Your task to perform on an android device: toggle airplane mode Image 0: 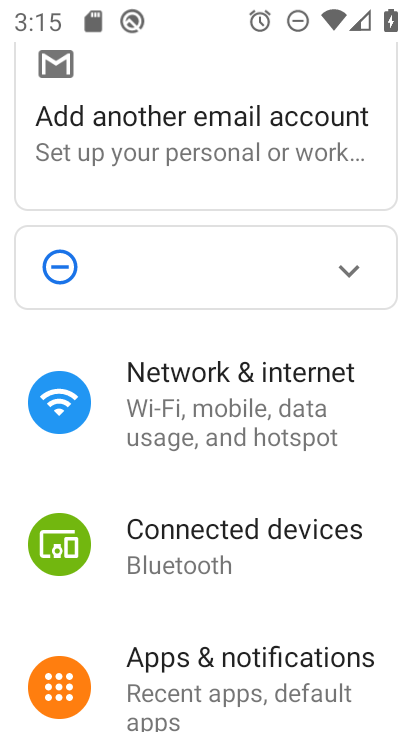
Step 0: drag from (371, 597) to (365, 420)
Your task to perform on an android device: toggle airplane mode Image 1: 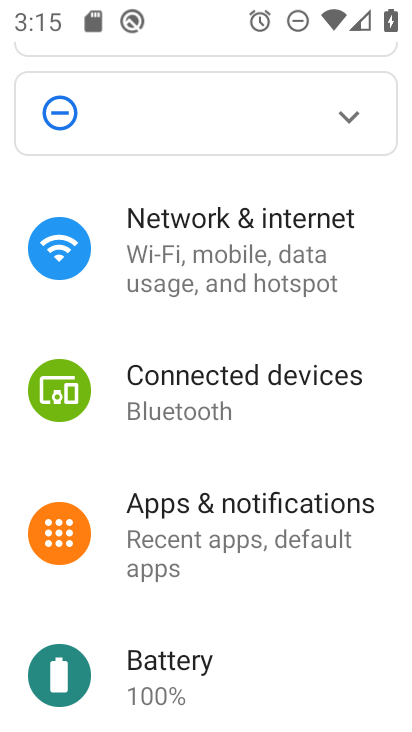
Step 1: drag from (343, 611) to (344, 439)
Your task to perform on an android device: toggle airplane mode Image 2: 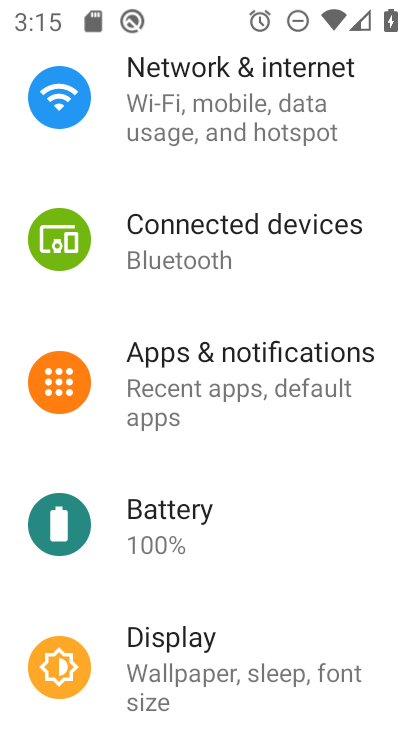
Step 2: drag from (329, 567) to (335, 423)
Your task to perform on an android device: toggle airplane mode Image 3: 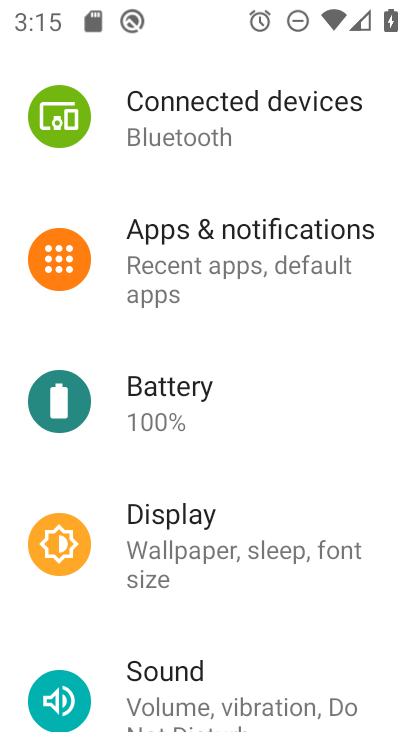
Step 3: drag from (336, 613) to (332, 480)
Your task to perform on an android device: toggle airplane mode Image 4: 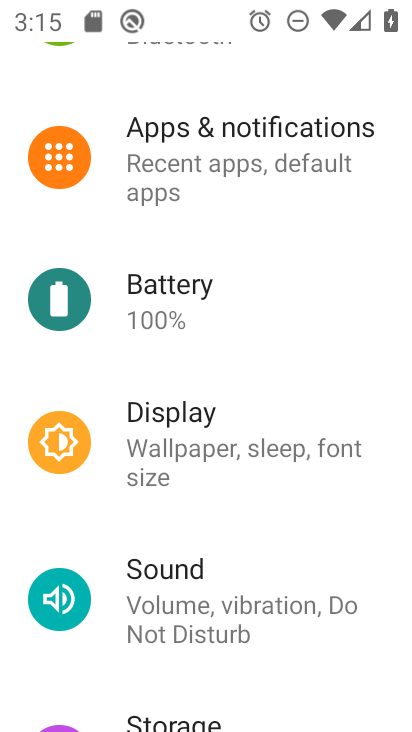
Step 4: drag from (352, 679) to (351, 480)
Your task to perform on an android device: toggle airplane mode Image 5: 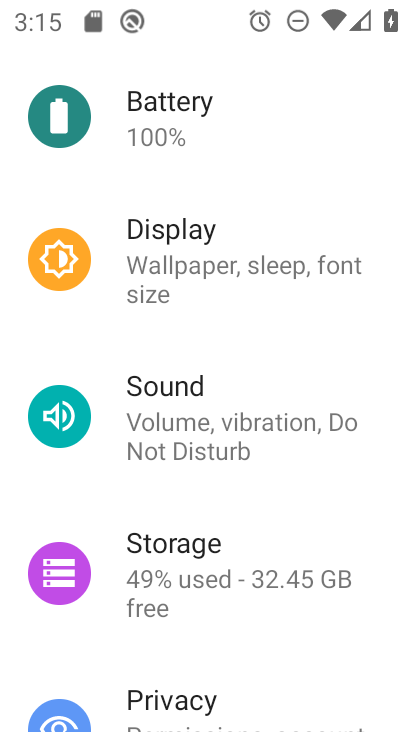
Step 5: drag from (346, 667) to (358, 471)
Your task to perform on an android device: toggle airplane mode Image 6: 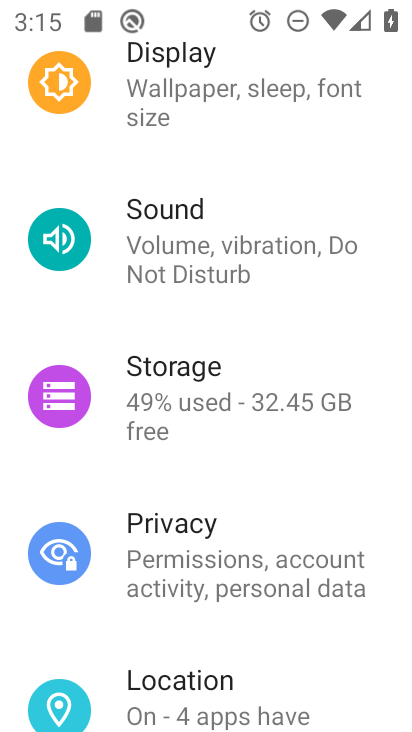
Step 6: drag from (332, 608) to (326, 442)
Your task to perform on an android device: toggle airplane mode Image 7: 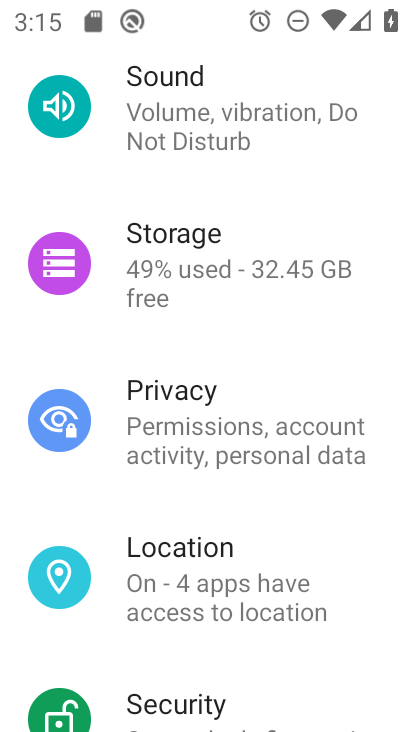
Step 7: drag from (333, 301) to (338, 399)
Your task to perform on an android device: toggle airplane mode Image 8: 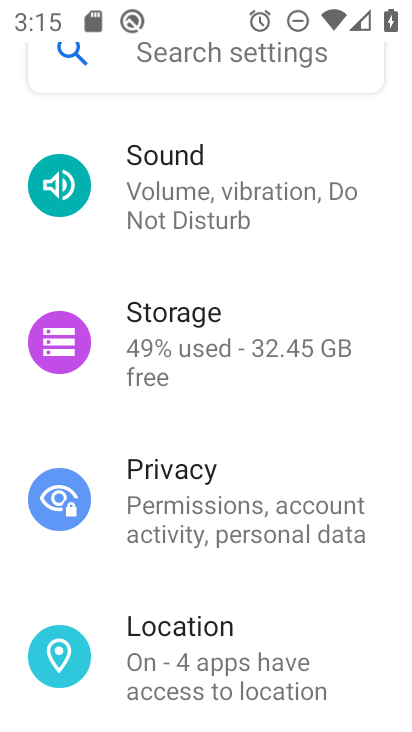
Step 8: drag from (360, 267) to (380, 390)
Your task to perform on an android device: toggle airplane mode Image 9: 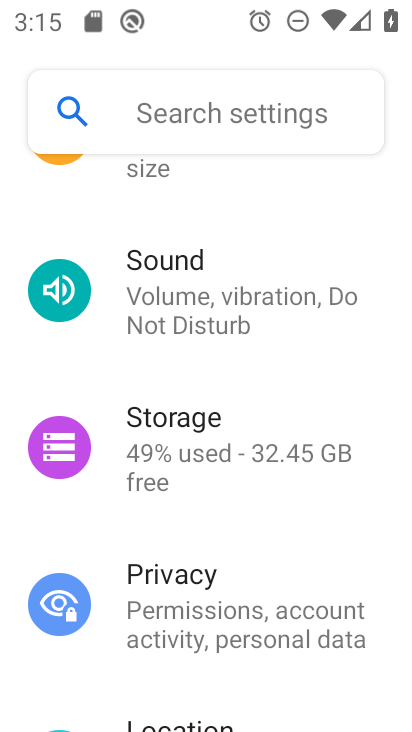
Step 9: drag from (388, 242) to (373, 435)
Your task to perform on an android device: toggle airplane mode Image 10: 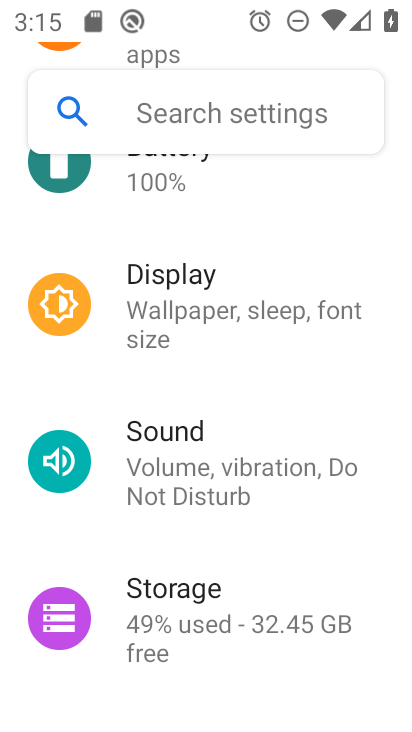
Step 10: drag from (367, 242) to (384, 344)
Your task to perform on an android device: toggle airplane mode Image 11: 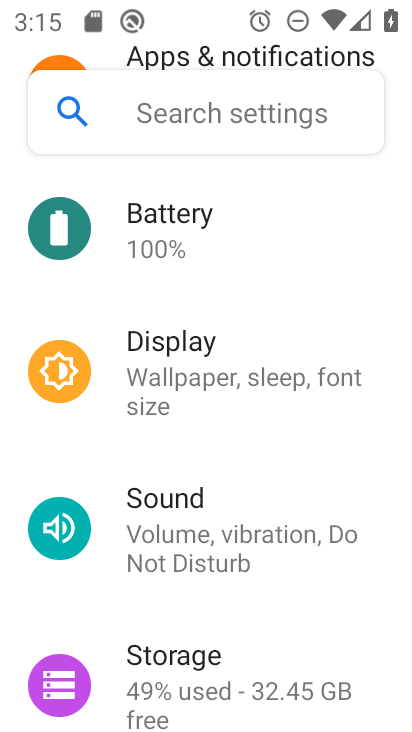
Step 11: drag from (389, 195) to (385, 320)
Your task to perform on an android device: toggle airplane mode Image 12: 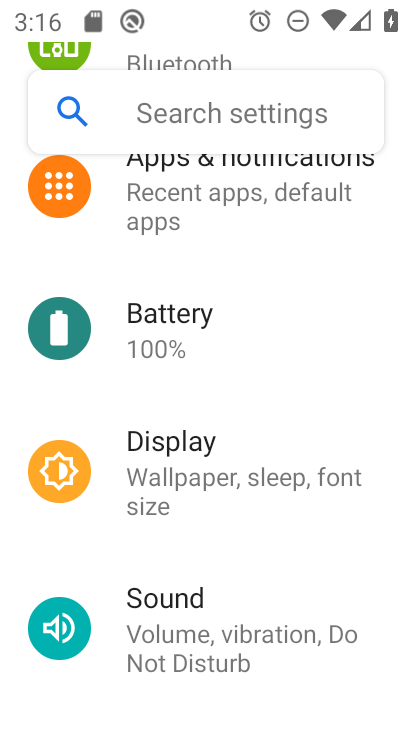
Step 12: drag from (367, 176) to (383, 327)
Your task to perform on an android device: toggle airplane mode Image 13: 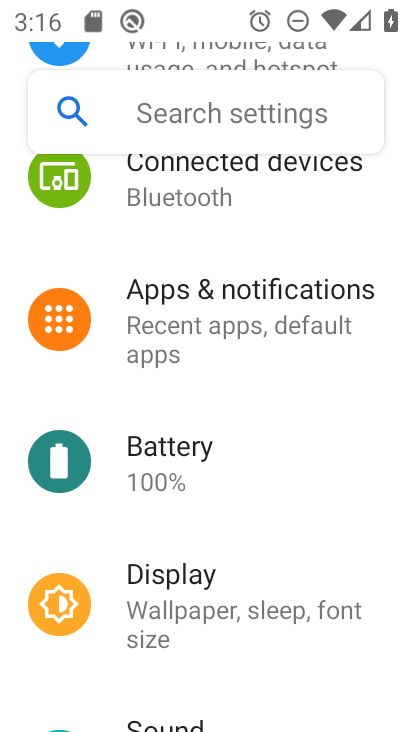
Step 13: drag from (368, 192) to (373, 343)
Your task to perform on an android device: toggle airplane mode Image 14: 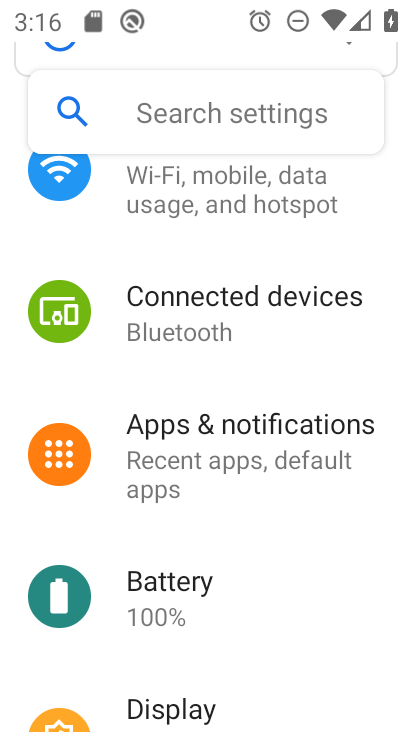
Step 14: drag from (375, 209) to (382, 339)
Your task to perform on an android device: toggle airplane mode Image 15: 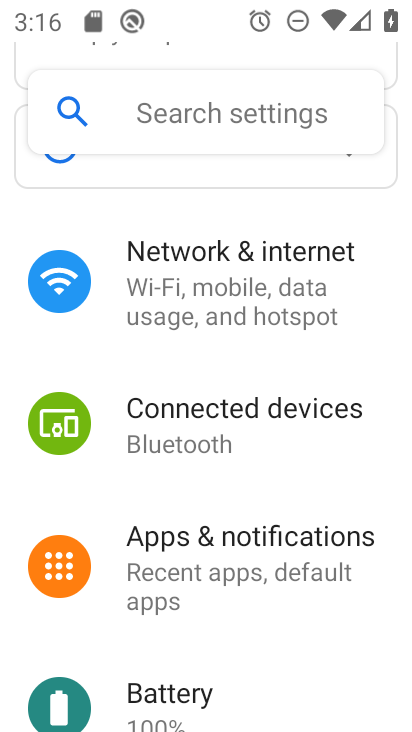
Step 15: click (338, 297)
Your task to perform on an android device: toggle airplane mode Image 16: 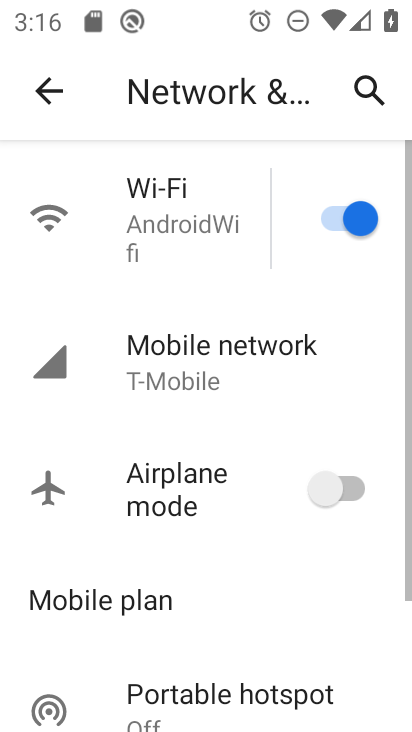
Step 16: click (315, 512)
Your task to perform on an android device: toggle airplane mode Image 17: 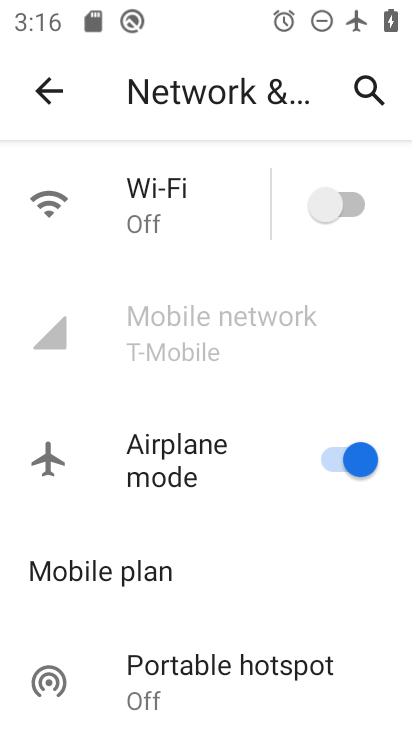
Step 17: task complete